Your task to perform on an android device: What is the recent news? Image 0: 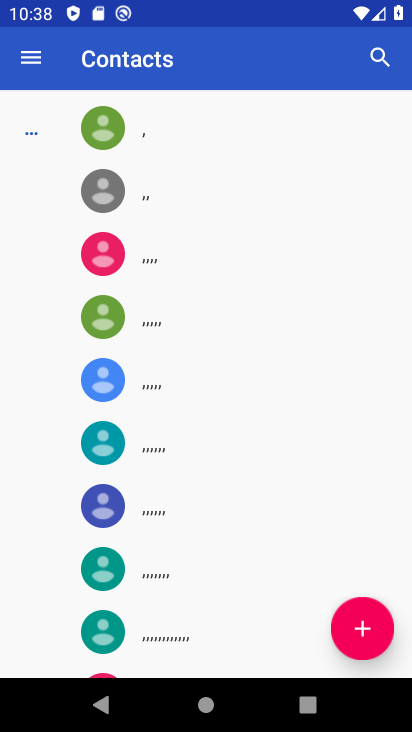
Step 0: press home button
Your task to perform on an android device: What is the recent news? Image 1: 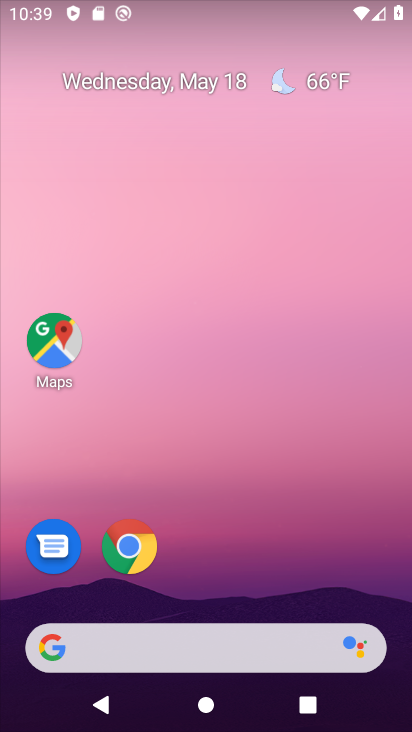
Step 1: task complete